Your task to perform on an android device: open app "Google Docs" Image 0: 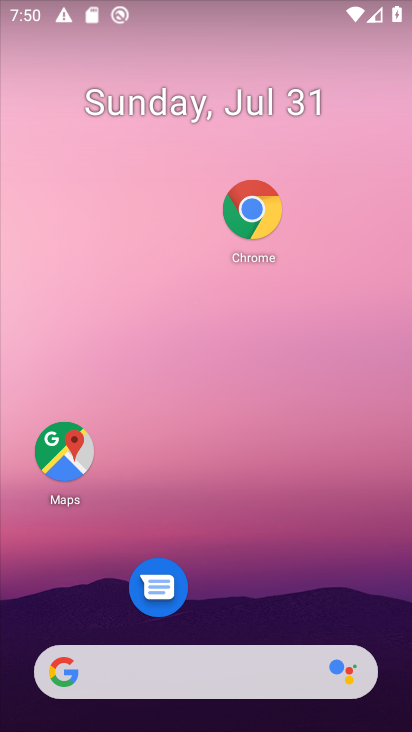
Step 0: drag from (263, 677) to (208, 11)
Your task to perform on an android device: open app "Google Docs" Image 1: 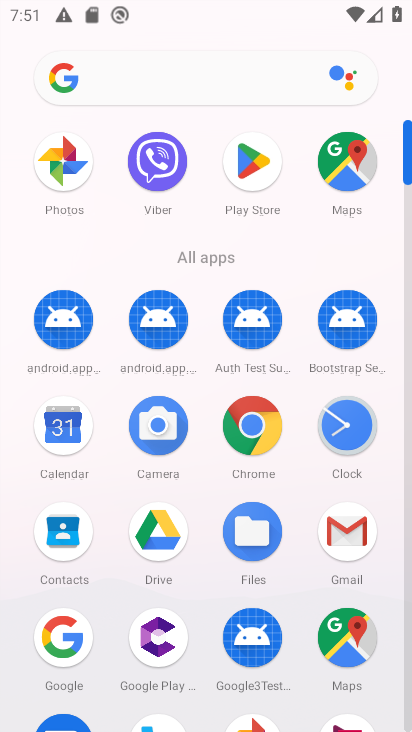
Step 1: click (248, 173)
Your task to perform on an android device: open app "Google Docs" Image 2: 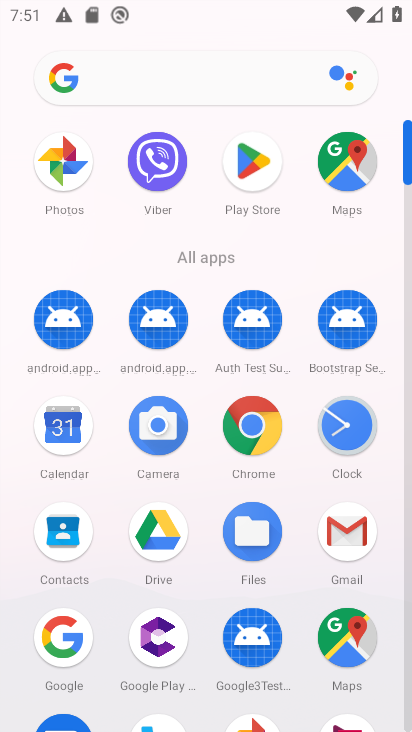
Step 2: click (249, 172)
Your task to perform on an android device: open app "Google Docs" Image 3: 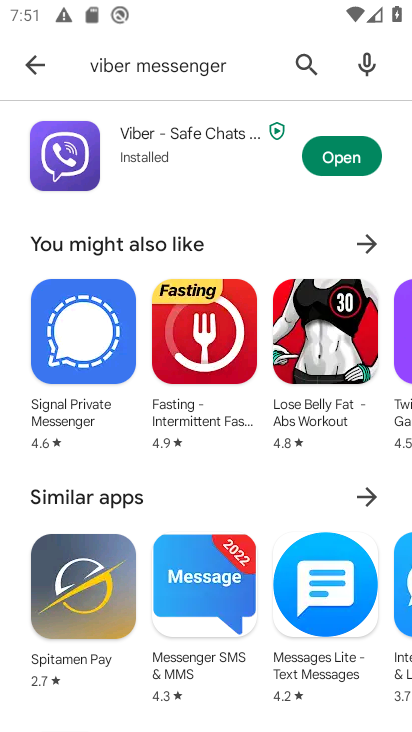
Step 3: click (238, 170)
Your task to perform on an android device: open app "Google Docs" Image 4: 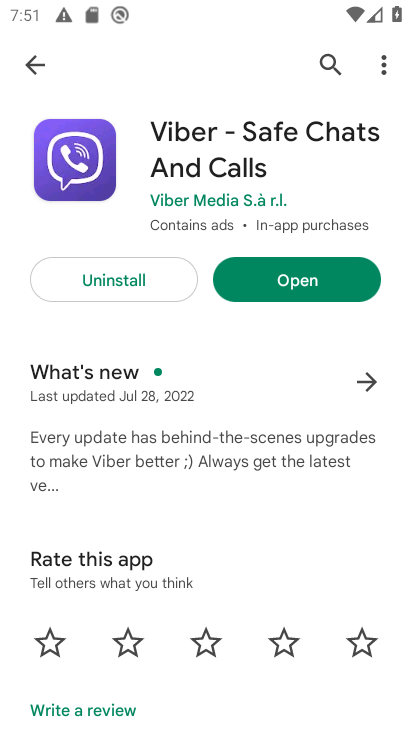
Step 4: click (32, 61)
Your task to perform on an android device: open app "Google Docs" Image 5: 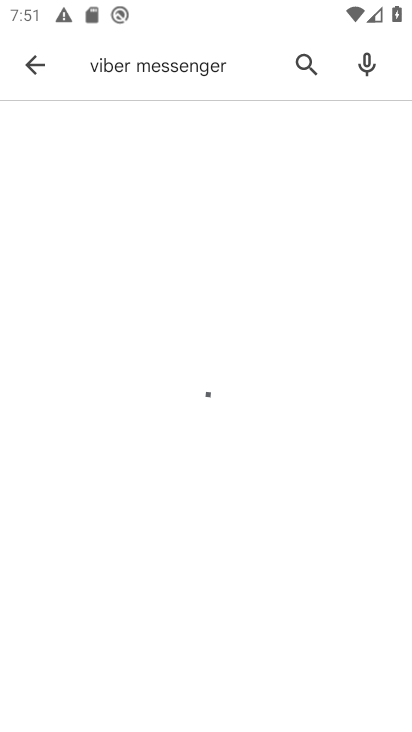
Step 5: click (36, 66)
Your task to perform on an android device: open app "Google Docs" Image 6: 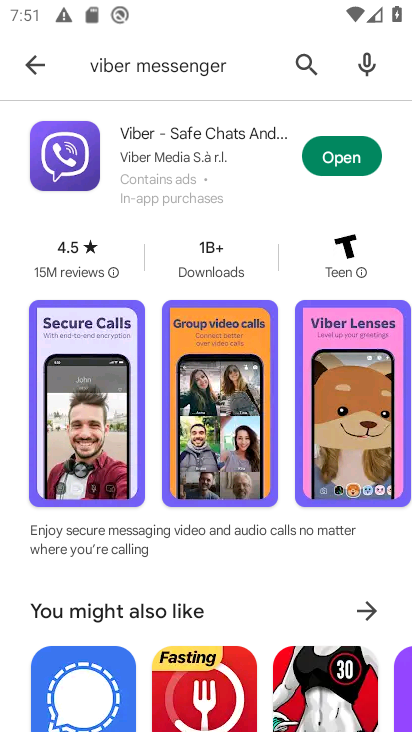
Step 6: click (35, 62)
Your task to perform on an android device: open app "Google Docs" Image 7: 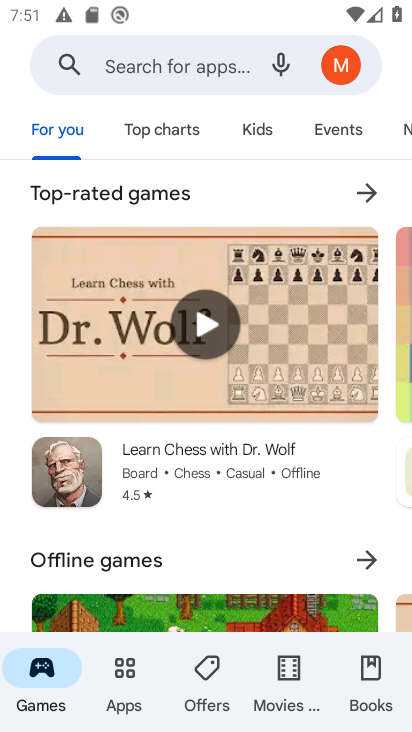
Step 7: click (104, 59)
Your task to perform on an android device: open app "Google Docs" Image 8: 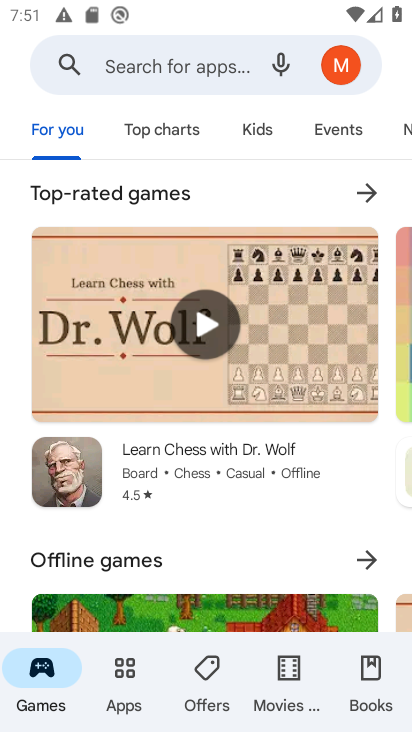
Step 8: click (118, 60)
Your task to perform on an android device: open app "Google Docs" Image 9: 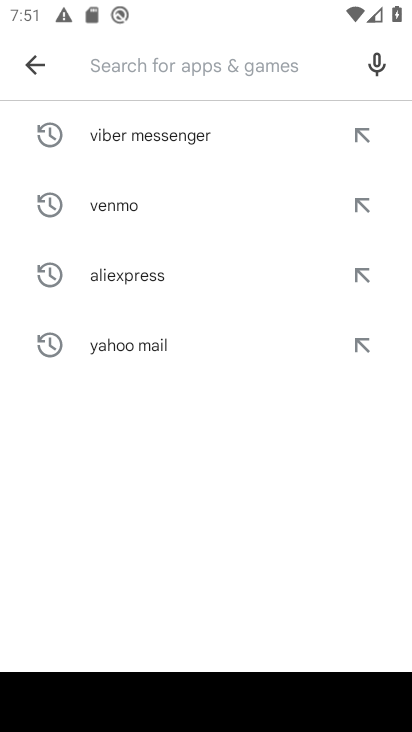
Step 9: type "Googe Docs"
Your task to perform on an android device: open app "Google Docs" Image 10: 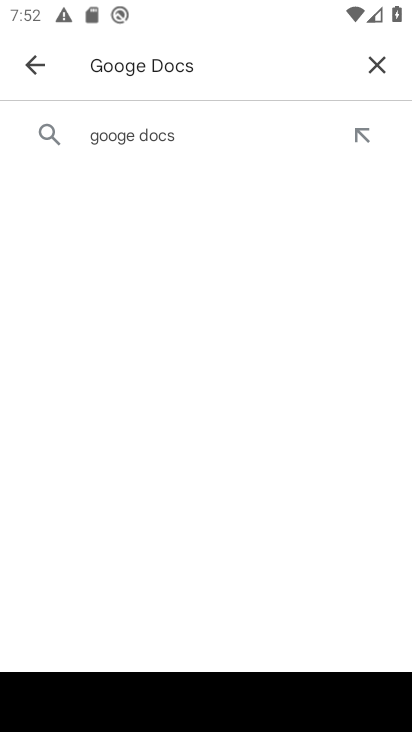
Step 10: click (137, 133)
Your task to perform on an android device: open app "Google Docs" Image 11: 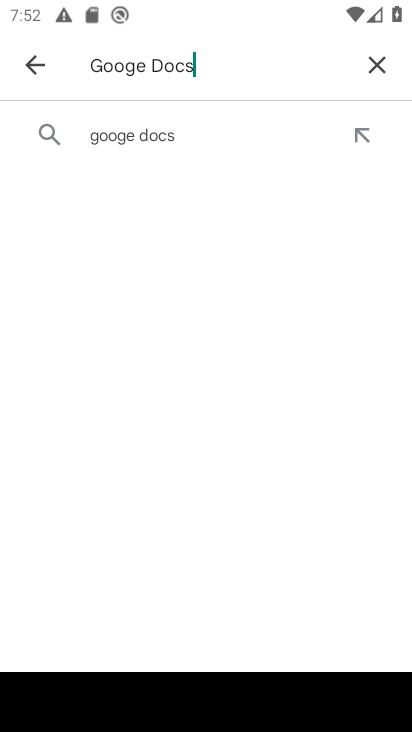
Step 11: click (138, 134)
Your task to perform on an android device: open app "Google Docs" Image 12: 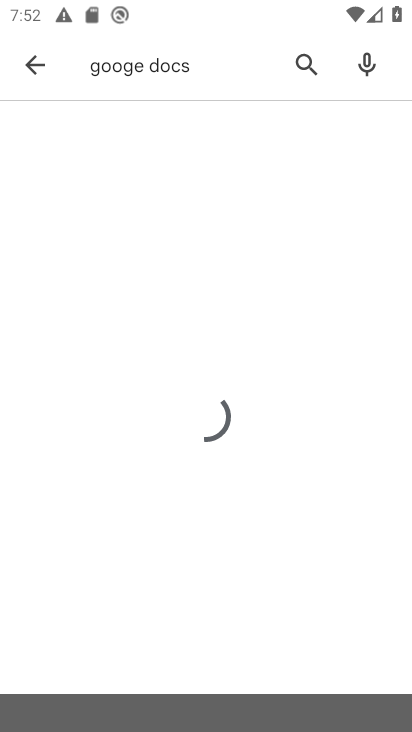
Step 12: click (145, 132)
Your task to perform on an android device: open app "Google Docs" Image 13: 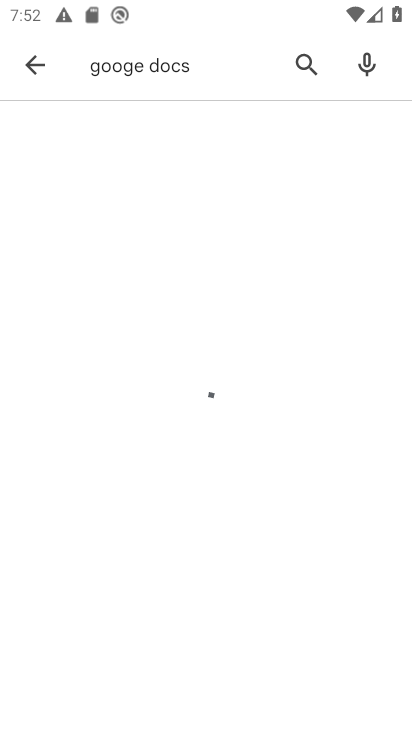
Step 13: click (146, 131)
Your task to perform on an android device: open app "Google Docs" Image 14: 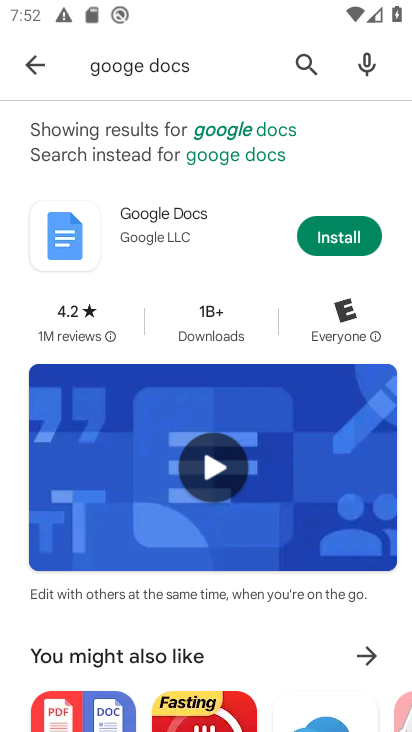
Step 14: click (142, 130)
Your task to perform on an android device: open app "Google Docs" Image 15: 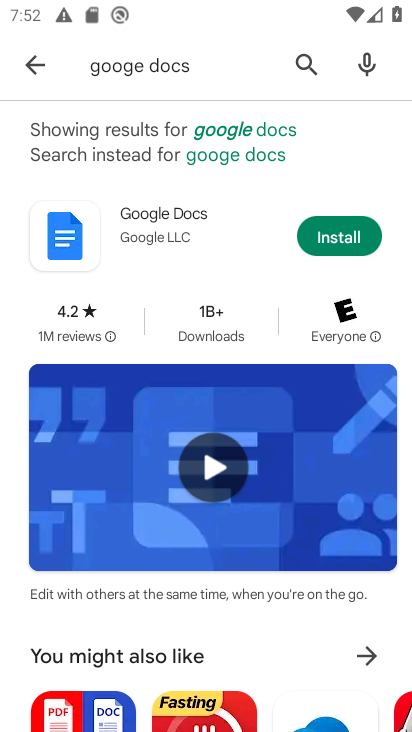
Step 15: click (341, 234)
Your task to perform on an android device: open app "Google Docs" Image 16: 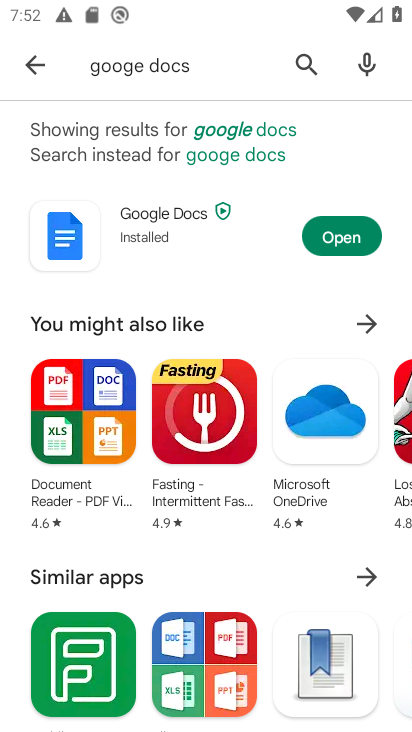
Step 16: click (342, 239)
Your task to perform on an android device: open app "Google Docs" Image 17: 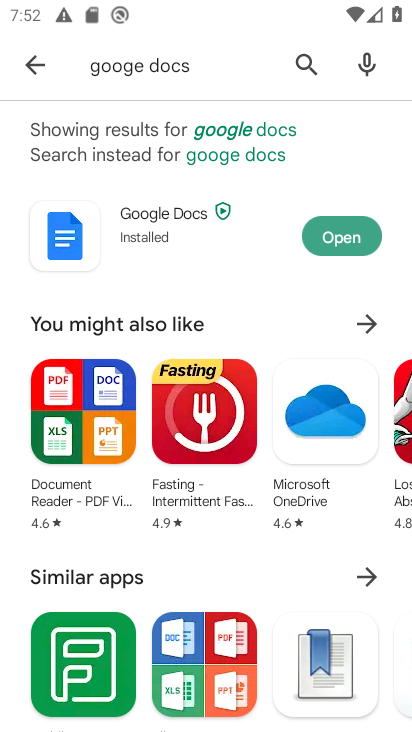
Step 17: click (339, 244)
Your task to perform on an android device: open app "Google Docs" Image 18: 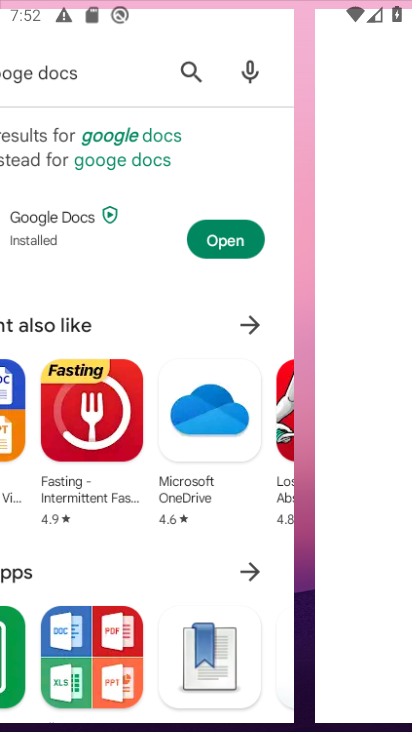
Step 18: click (346, 251)
Your task to perform on an android device: open app "Google Docs" Image 19: 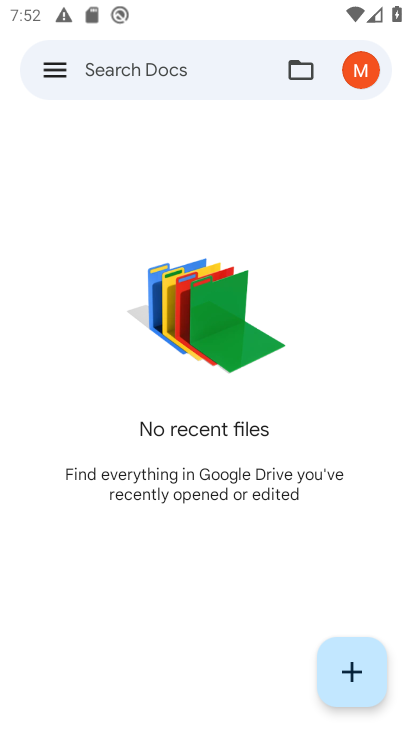
Step 19: task complete